Your task to perform on an android device: Open Google Chrome and open the bookmarks view Image 0: 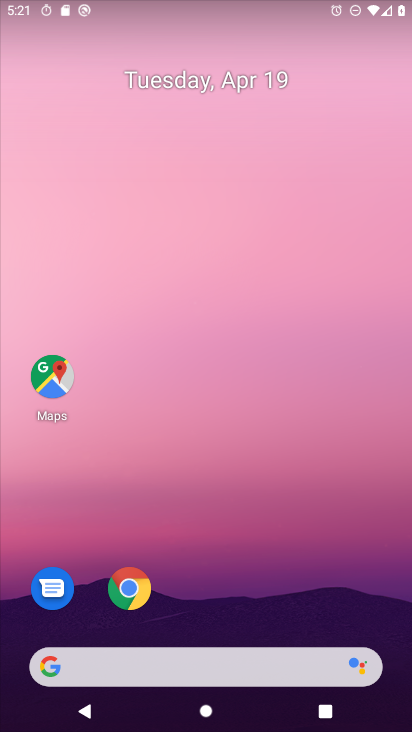
Step 0: click (139, 586)
Your task to perform on an android device: Open Google Chrome and open the bookmarks view Image 1: 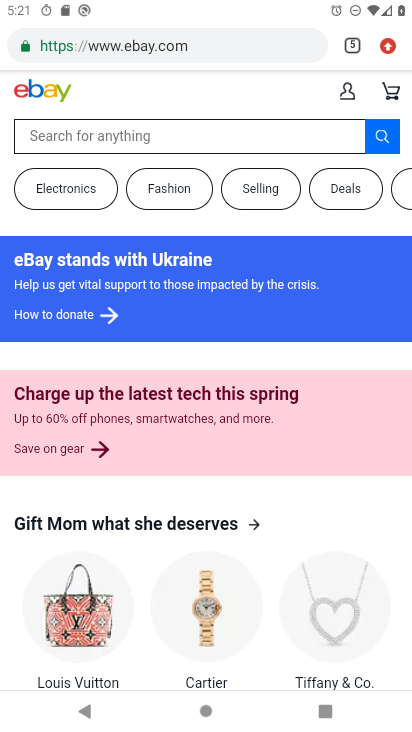
Step 1: click (387, 44)
Your task to perform on an android device: Open Google Chrome and open the bookmarks view Image 2: 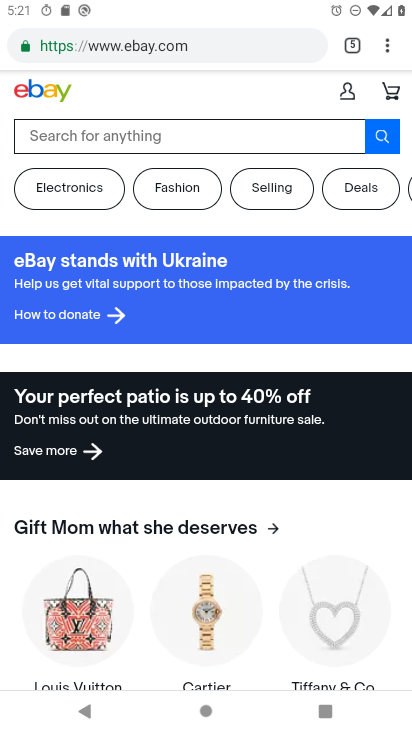
Step 2: click (388, 43)
Your task to perform on an android device: Open Google Chrome and open the bookmarks view Image 3: 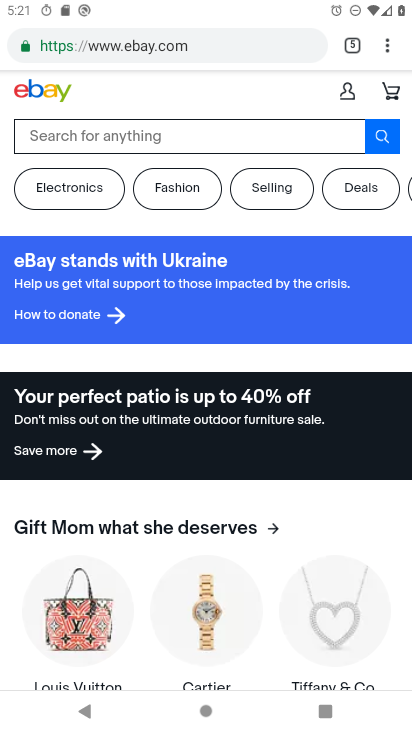
Step 3: click (388, 43)
Your task to perform on an android device: Open Google Chrome and open the bookmarks view Image 4: 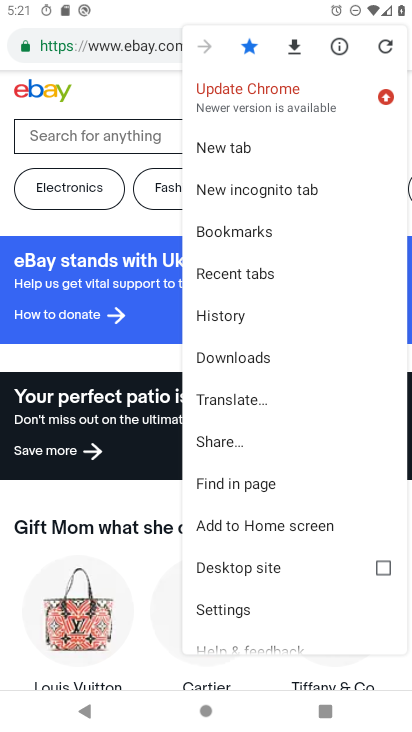
Step 4: click (270, 236)
Your task to perform on an android device: Open Google Chrome and open the bookmarks view Image 5: 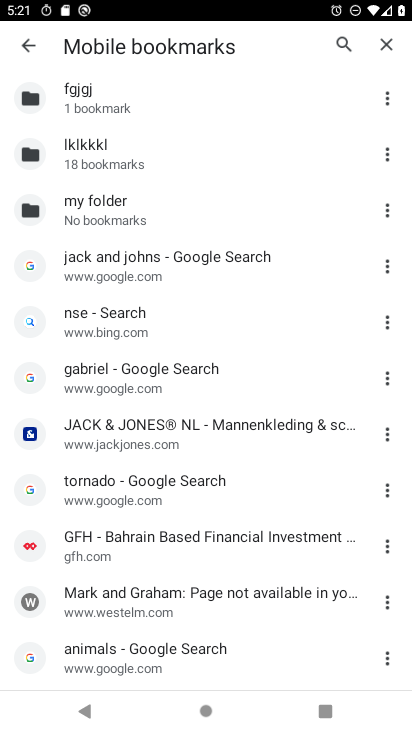
Step 5: click (153, 440)
Your task to perform on an android device: Open Google Chrome and open the bookmarks view Image 6: 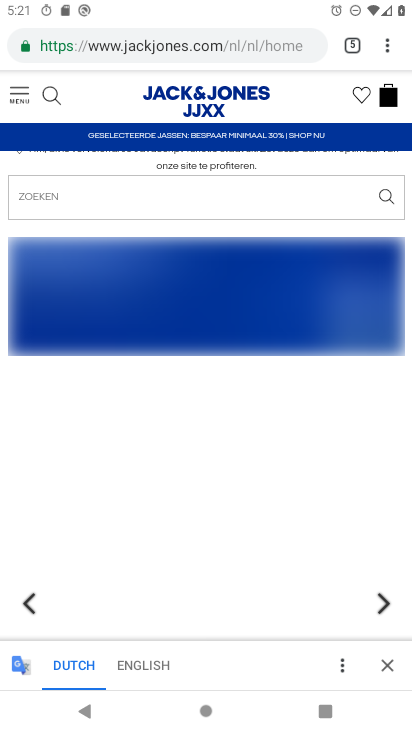
Step 6: task complete